Your task to perform on an android device: turn off improve location accuracy Image 0: 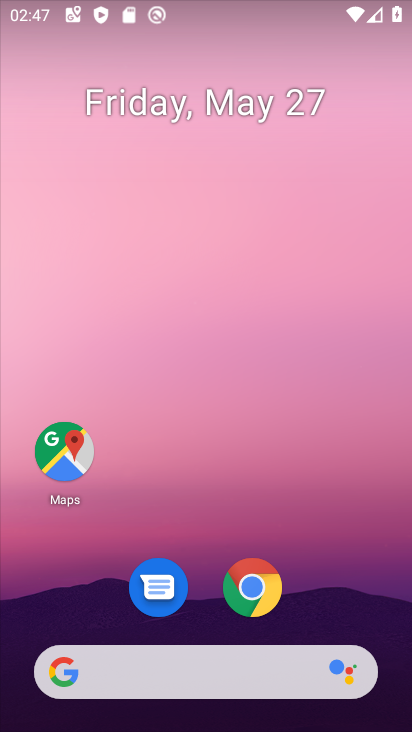
Step 0: press home button
Your task to perform on an android device: turn off improve location accuracy Image 1: 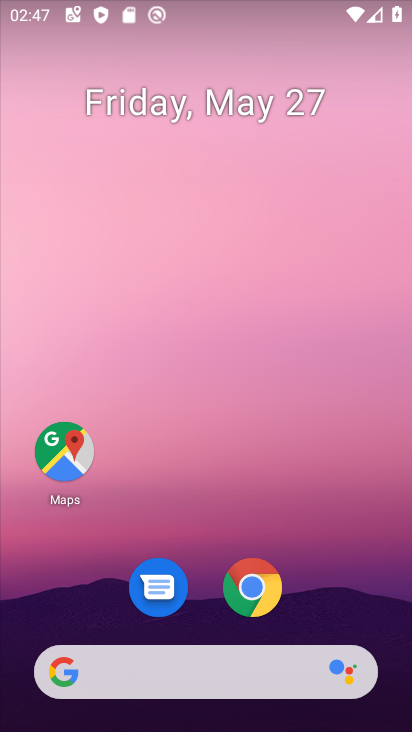
Step 1: drag from (348, 628) to (283, 157)
Your task to perform on an android device: turn off improve location accuracy Image 2: 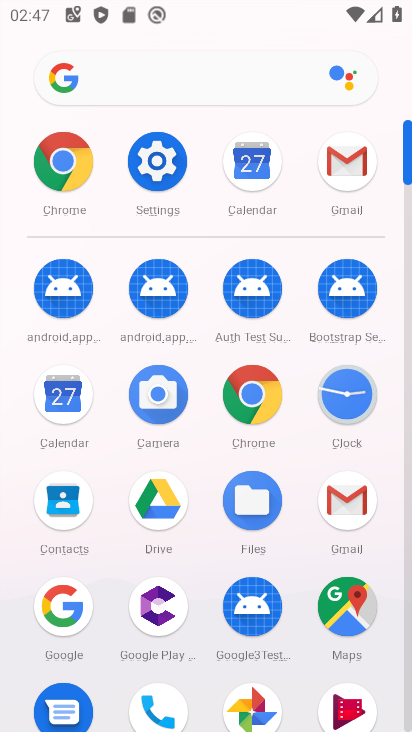
Step 2: click (167, 169)
Your task to perform on an android device: turn off improve location accuracy Image 3: 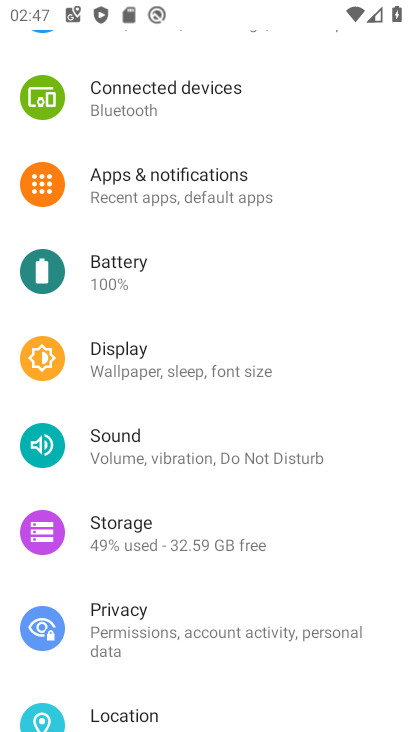
Step 3: click (146, 718)
Your task to perform on an android device: turn off improve location accuracy Image 4: 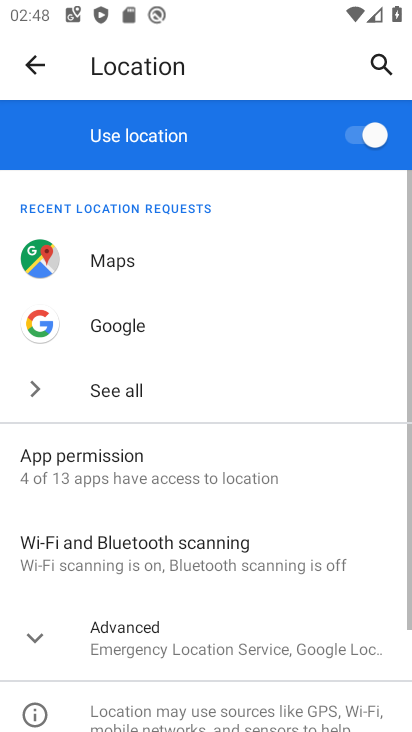
Step 4: click (142, 634)
Your task to perform on an android device: turn off improve location accuracy Image 5: 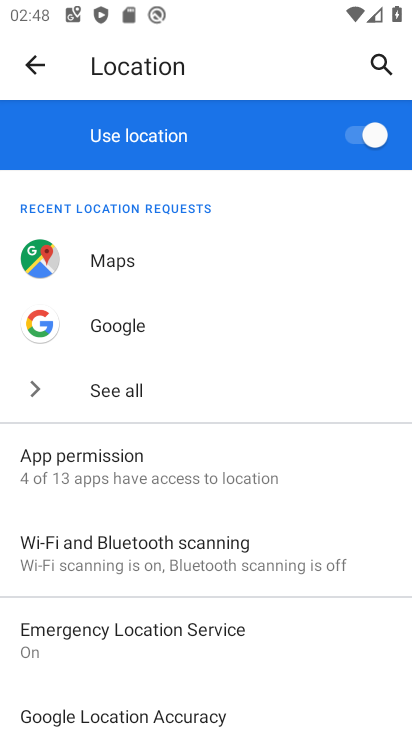
Step 5: drag from (333, 559) to (337, 205)
Your task to perform on an android device: turn off improve location accuracy Image 6: 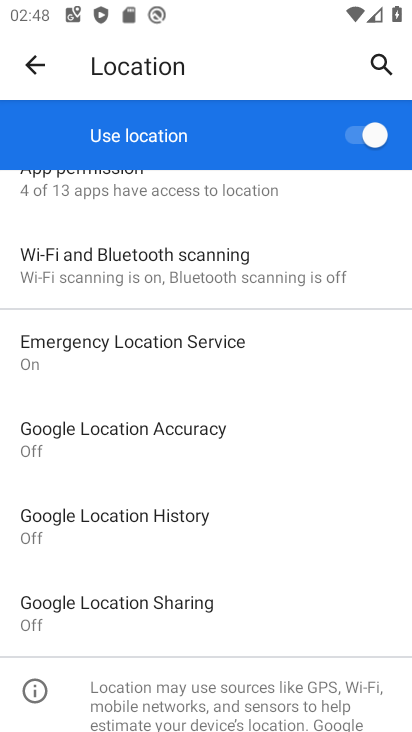
Step 6: click (149, 436)
Your task to perform on an android device: turn off improve location accuracy Image 7: 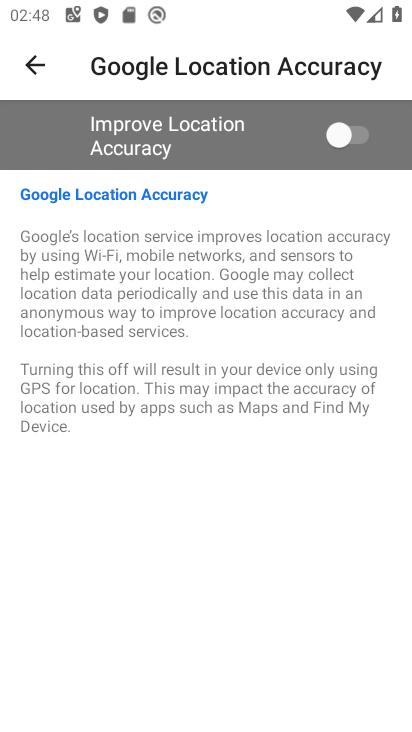
Step 7: task complete